Your task to perform on an android device: Toggle the flashlight Image 0: 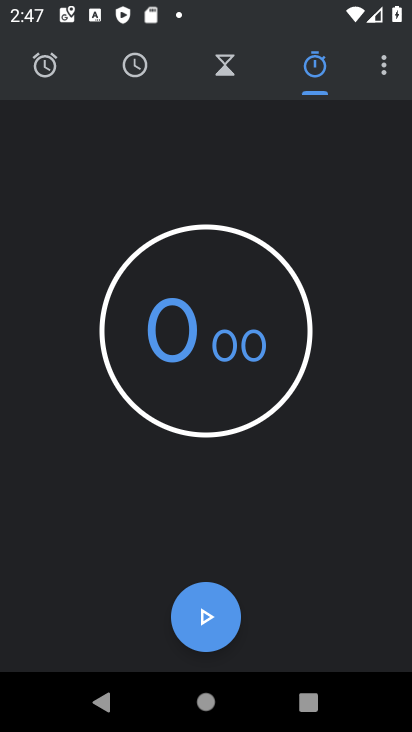
Step 0: press home button
Your task to perform on an android device: Toggle the flashlight Image 1: 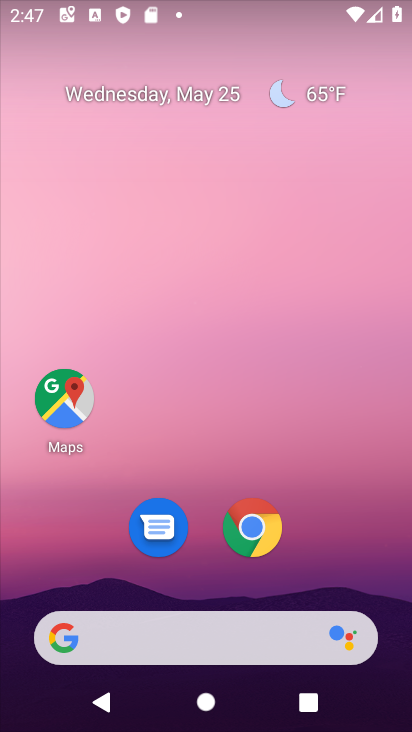
Step 1: drag from (182, 577) to (265, 103)
Your task to perform on an android device: Toggle the flashlight Image 2: 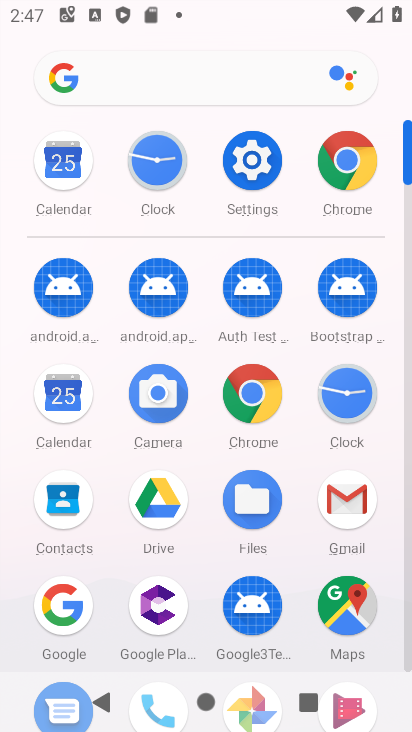
Step 2: click (237, 127)
Your task to perform on an android device: Toggle the flashlight Image 3: 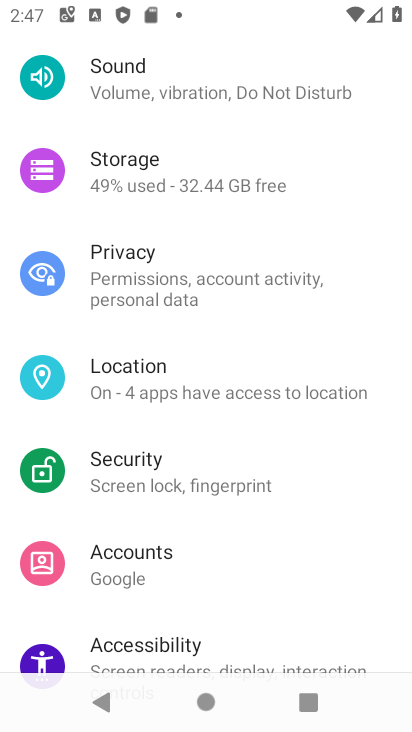
Step 3: drag from (356, 172) to (342, 699)
Your task to perform on an android device: Toggle the flashlight Image 4: 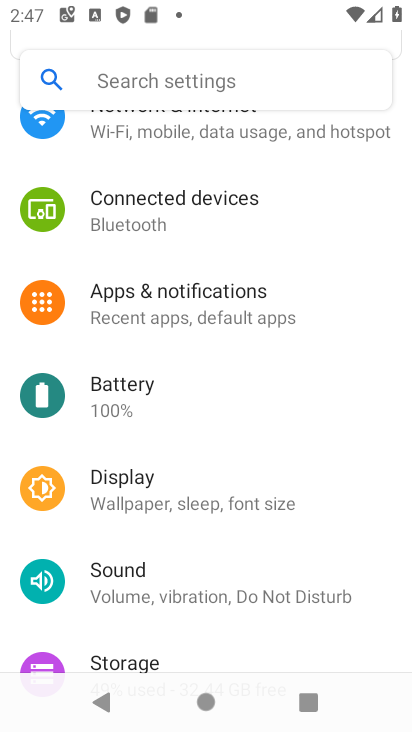
Step 4: drag from (328, 569) to (342, 146)
Your task to perform on an android device: Toggle the flashlight Image 5: 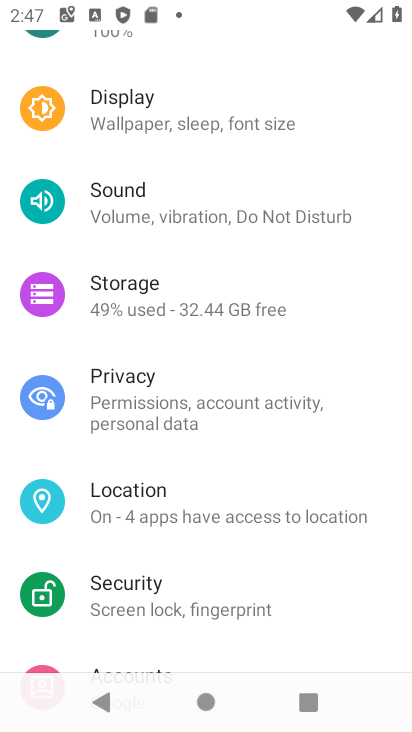
Step 5: click (213, 203)
Your task to perform on an android device: Toggle the flashlight Image 6: 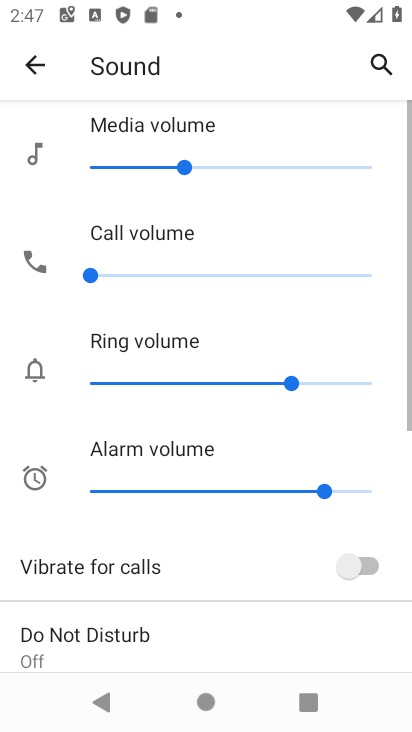
Step 6: task complete